Your task to perform on an android device: Is it going to rain this weekend? Image 0: 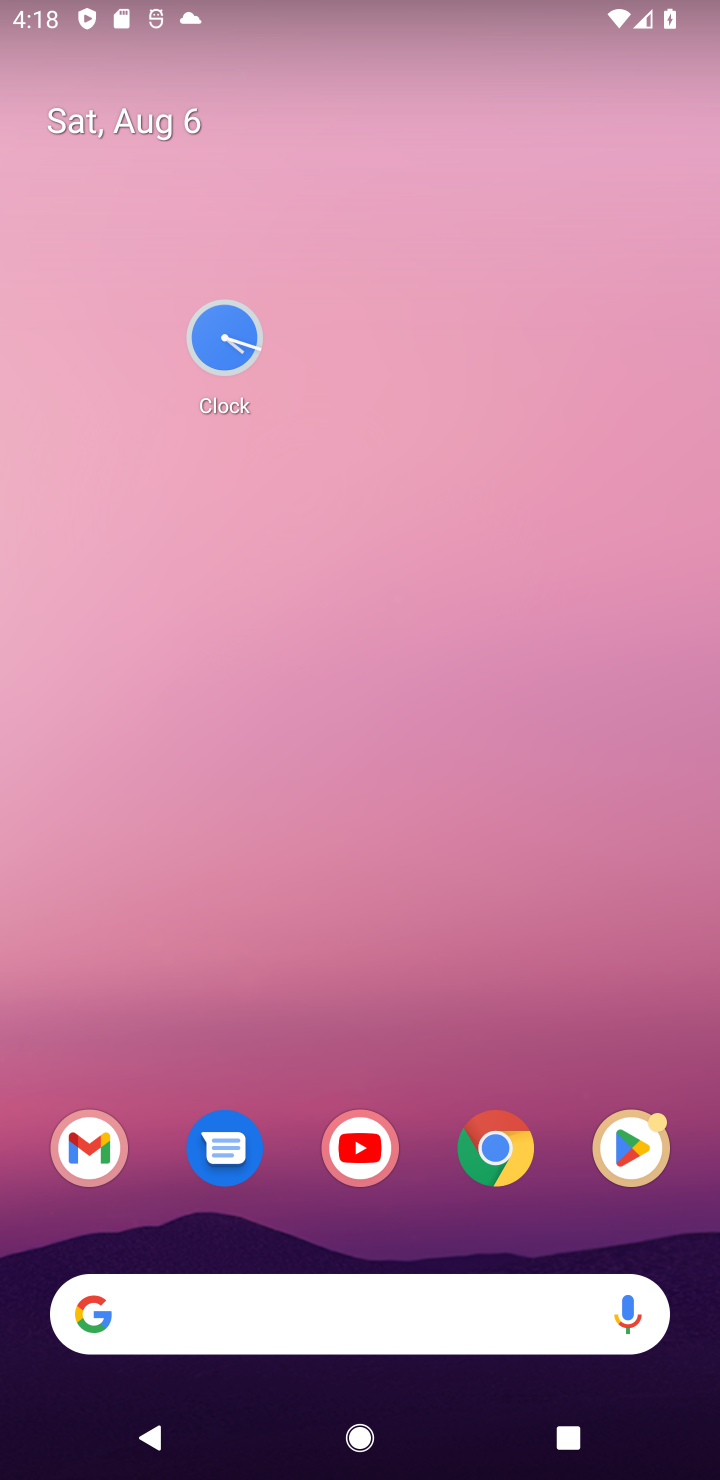
Step 0: click (464, 458)
Your task to perform on an android device: Is it going to rain this weekend? Image 1: 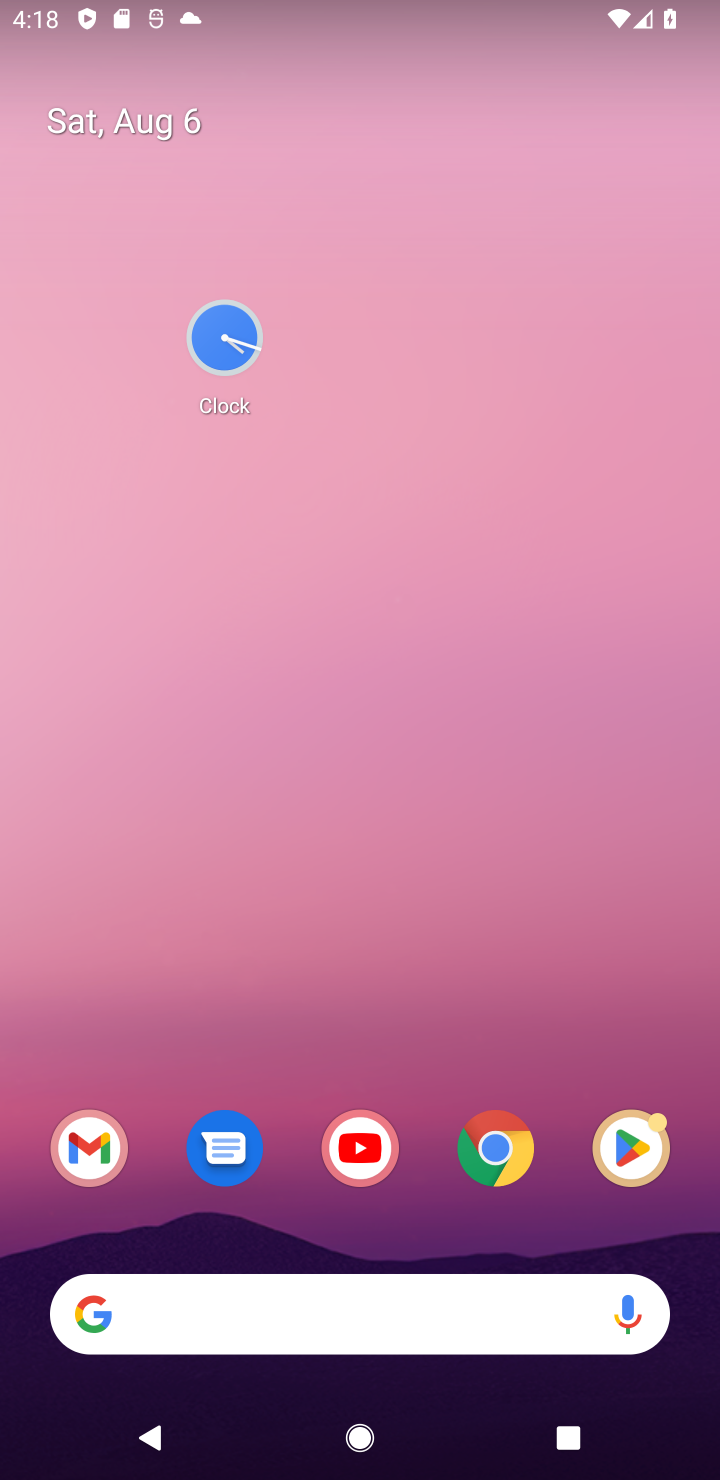
Step 1: drag from (317, 1119) to (479, 186)
Your task to perform on an android device: Is it going to rain this weekend? Image 2: 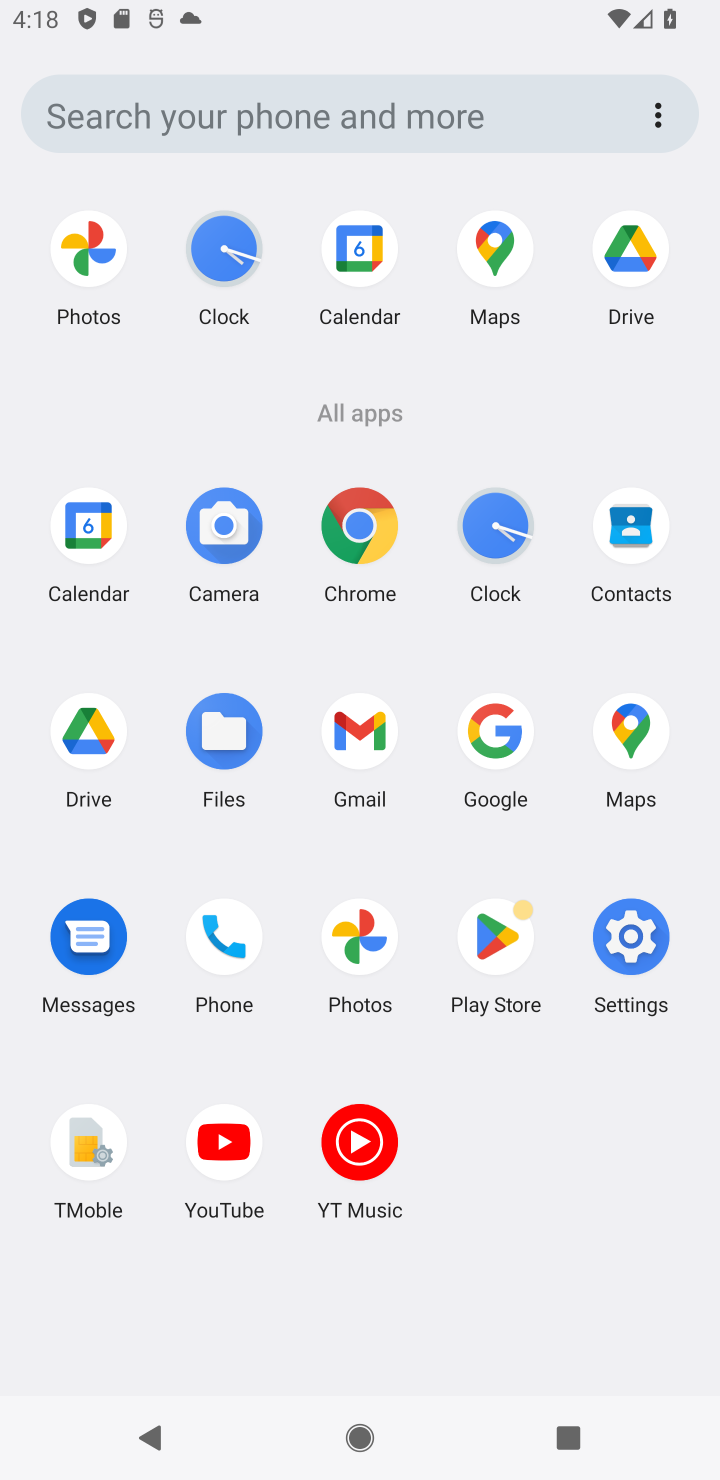
Step 2: click (356, 521)
Your task to perform on an android device: Is it going to rain this weekend? Image 3: 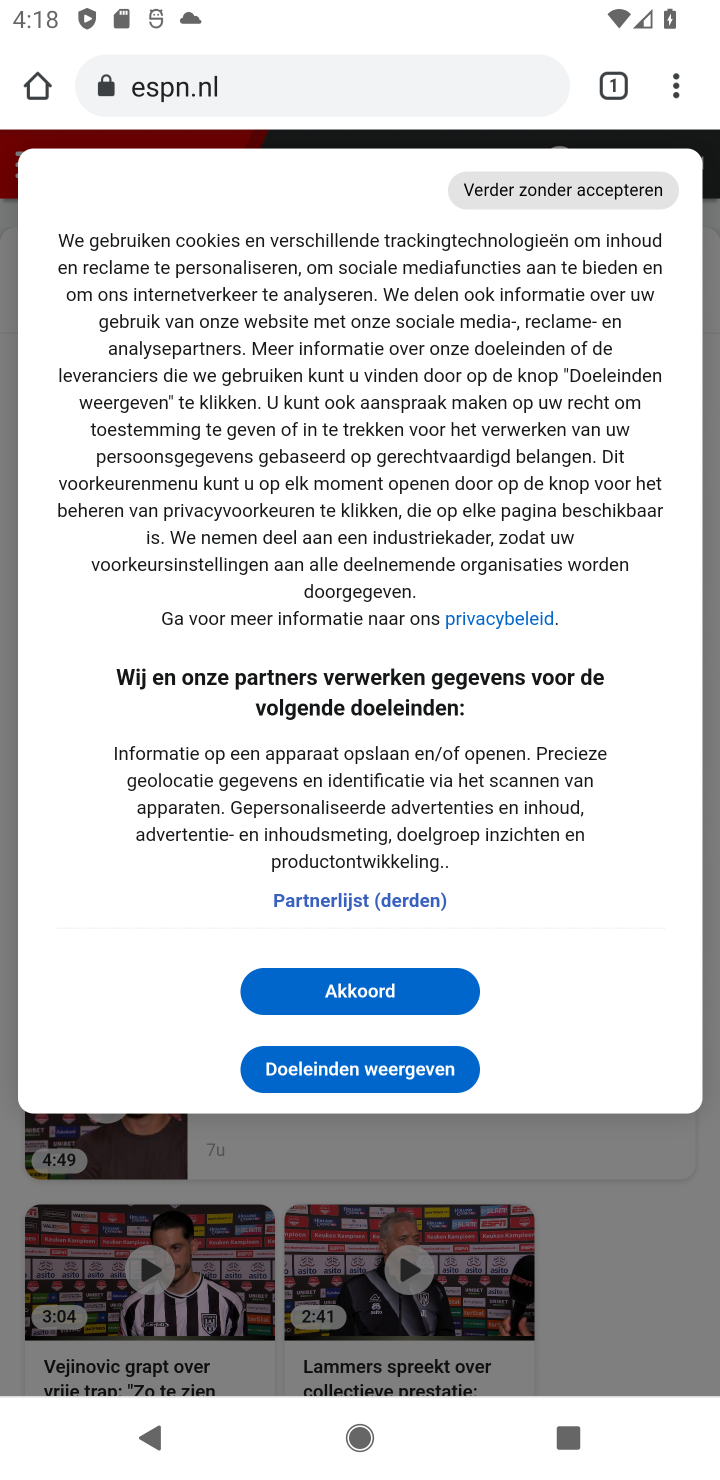
Step 3: click (250, 91)
Your task to perform on an android device: Is it going to rain this weekend? Image 4: 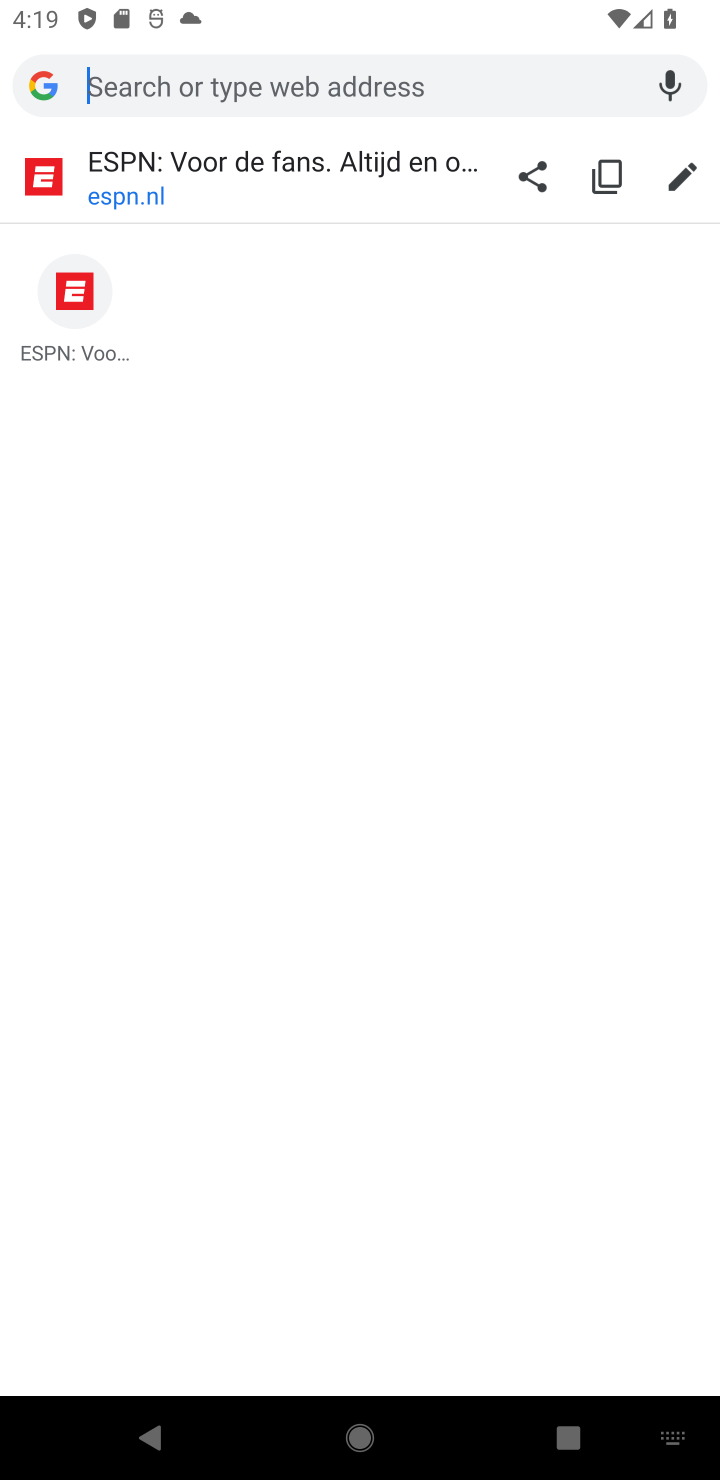
Step 4: type "Is it going to rain this weekend?"
Your task to perform on an android device: Is it going to rain this weekend? Image 5: 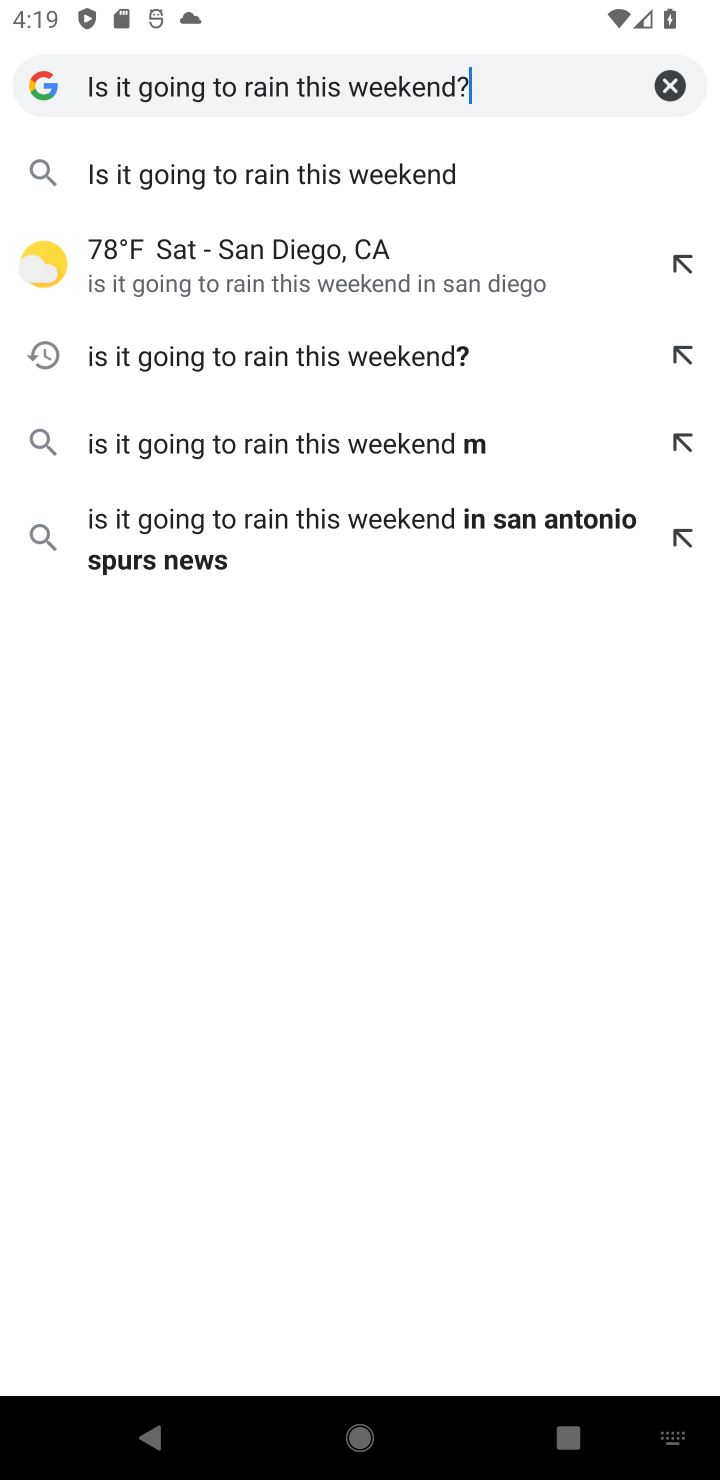
Step 5: type ""
Your task to perform on an android device: Is it going to rain this weekend? Image 6: 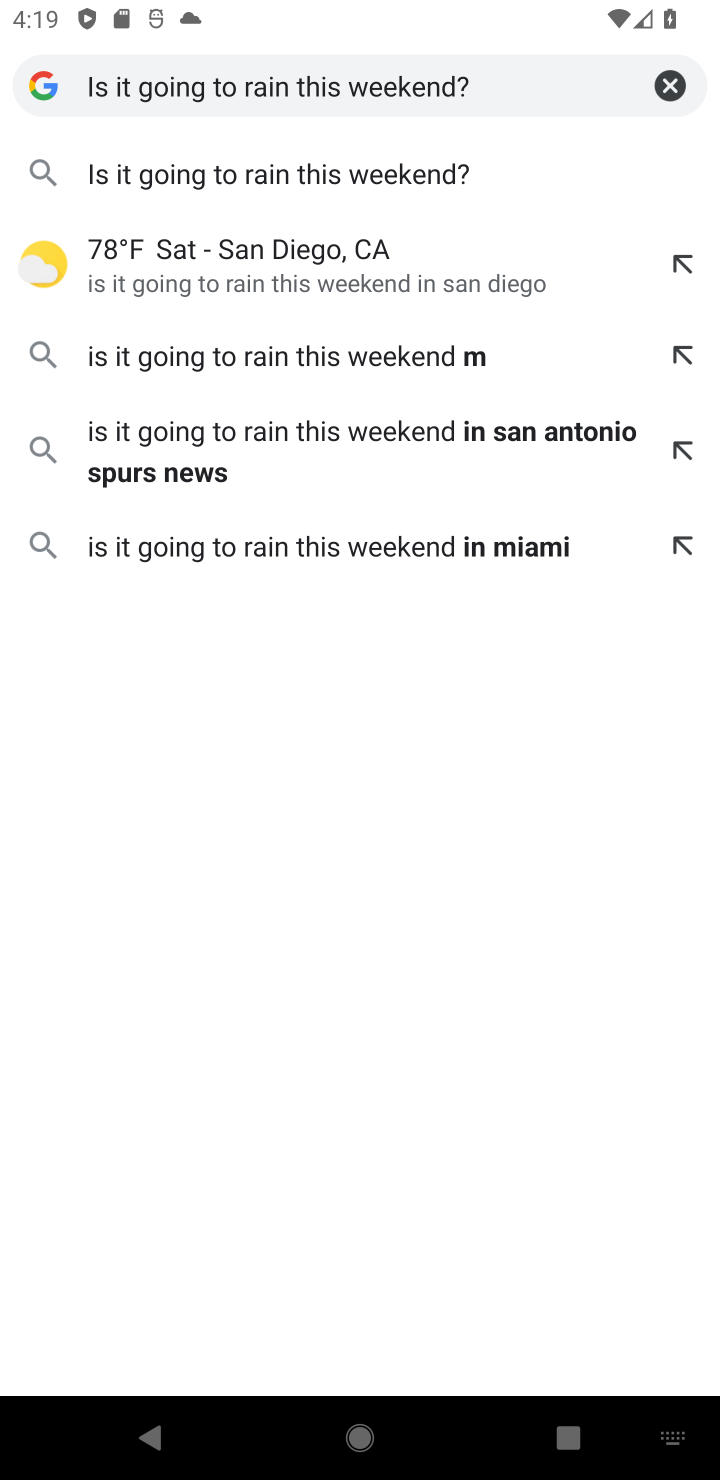
Step 6: click (214, 175)
Your task to perform on an android device: Is it going to rain this weekend? Image 7: 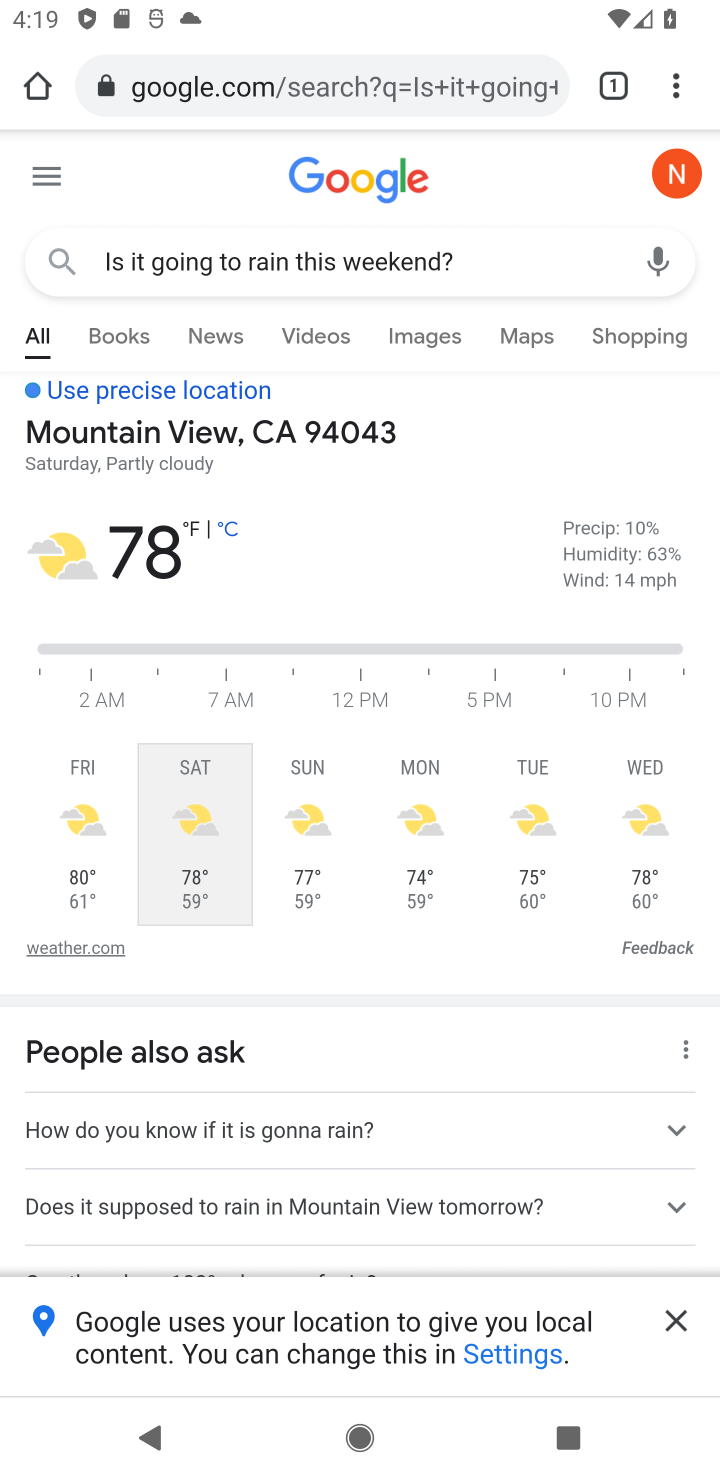
Step 7: task complete